Your task to perform on an android device: Open the Play Movies app and select the watchlist tab. Image 0: 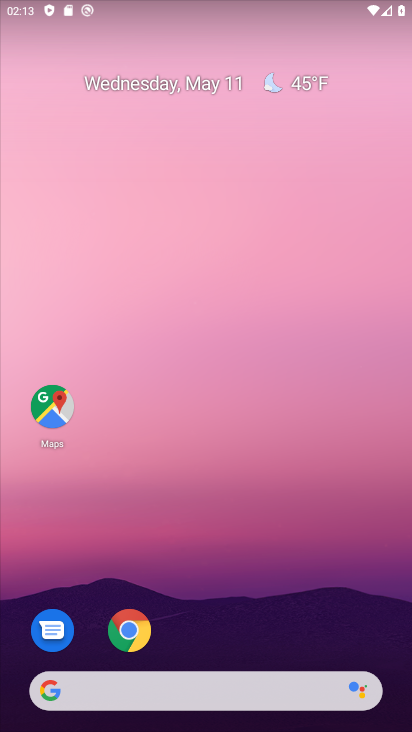
Step 0: drag from (194, 698) to (196, 50)
Your task to perform on an android device: Open the Play Movies app and select the watchlist tab. Image 1: 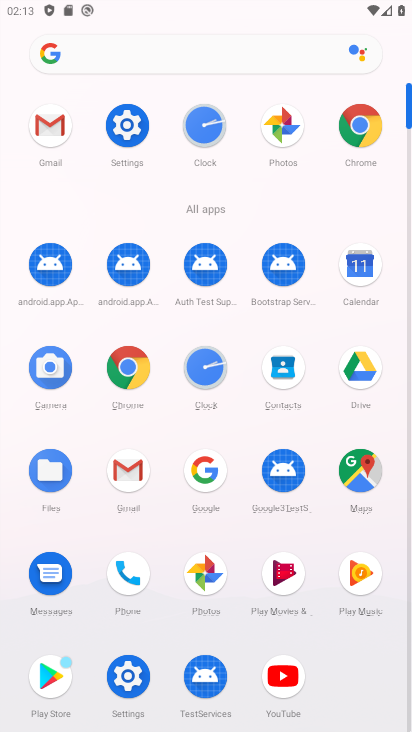
Step 1: click (278, 574)
Your task to perform on an android device: Open the Play Movies app and select the watchlist tab. Image 2: 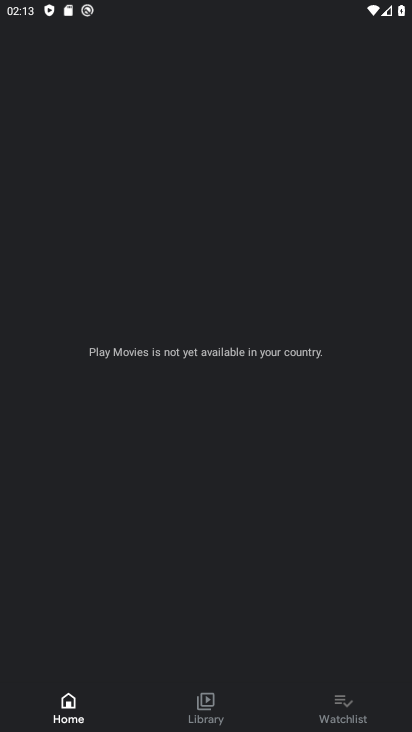
Step 2: click (336, 703)
Your task to perform on an android device: Open the Play Movies app and select the watchlist tab. Image 3: 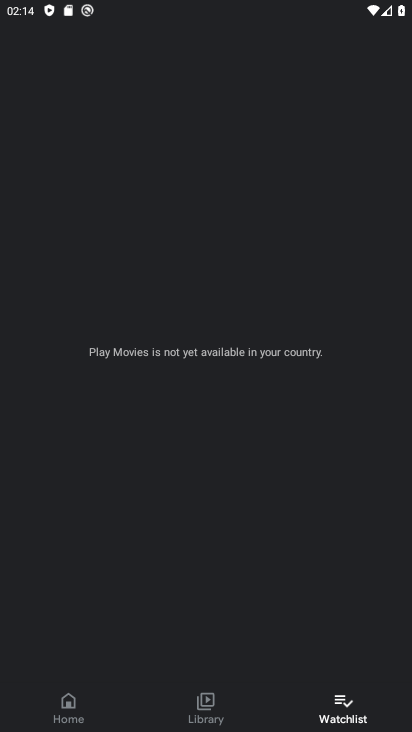
Step 3: task complete